Your task to perform on an android device: Open my contact list Image 0: 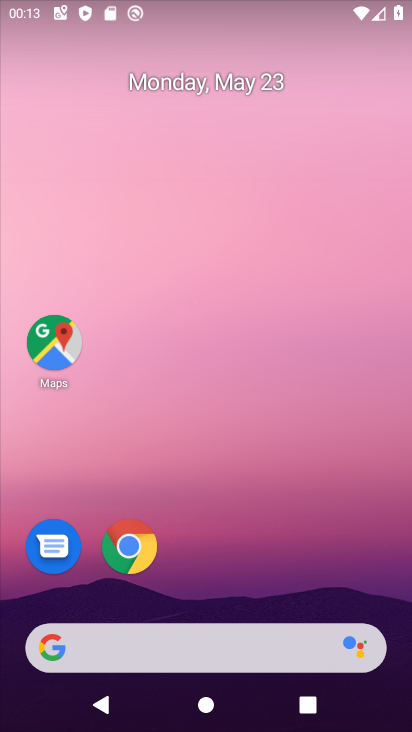
Step 0: drag from (209, 582) to (210, 47)
Your task to perform on an android device: Open my contact list Image 1: 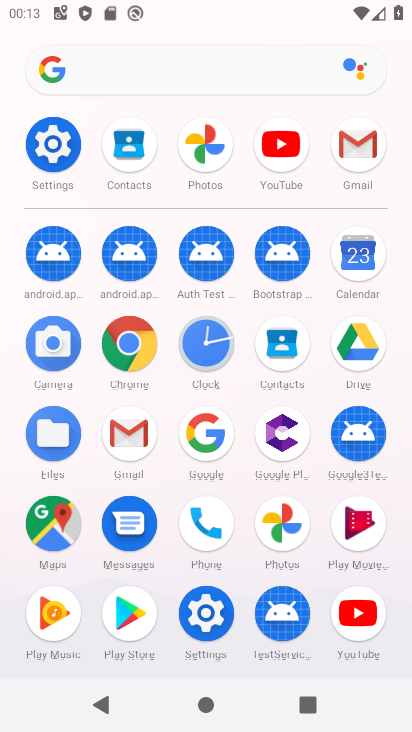
Step 1: click (286, 351)
Your task to perform on an android device: Open my contact list Image 2: 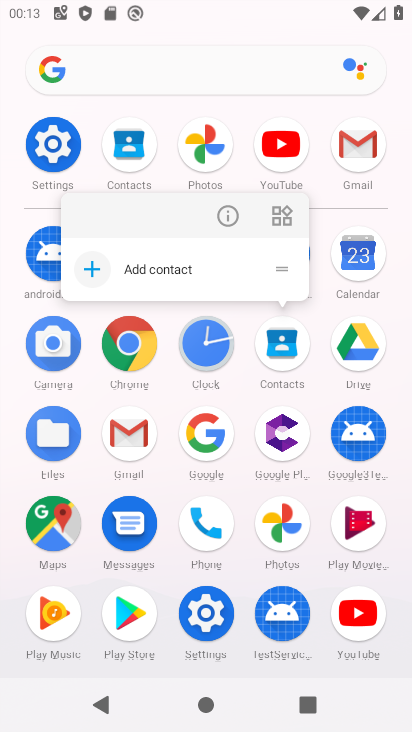
Step 2: click (233, 206)
Your task to perform on an android device: Open my contact list Image 3: 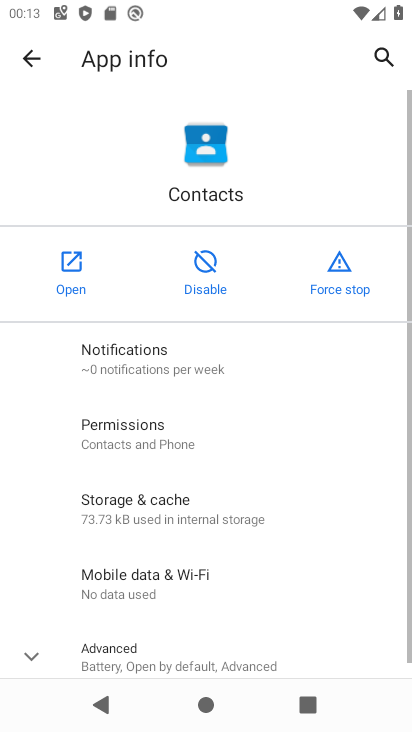
Step 3: click (78, 262)
Your task to perform on an android device: Open my contact list Image 4: 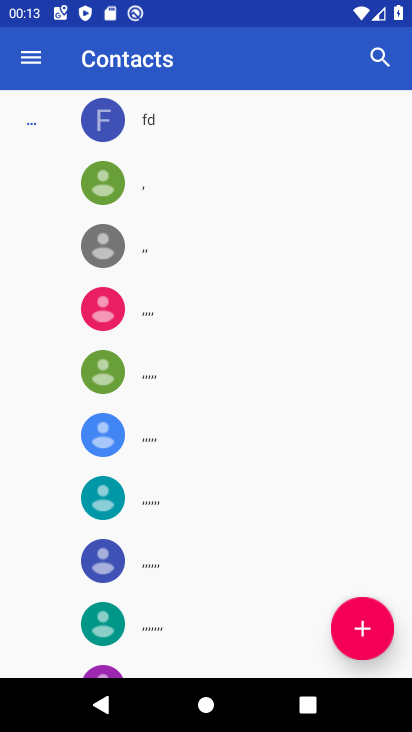
Step 4: task complete